Your task to perform on an android device: Turn off the flashlight Image 0: 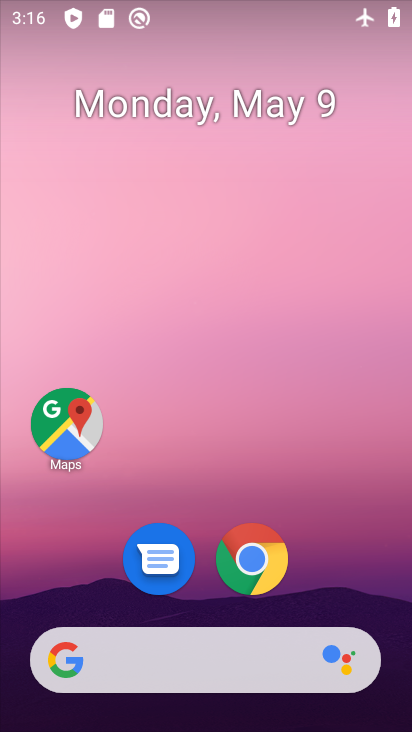
Step 0: drag from (200, 714) to (209, 140)
Your task to perform on an android device: Turn off the flashlight Image 1: 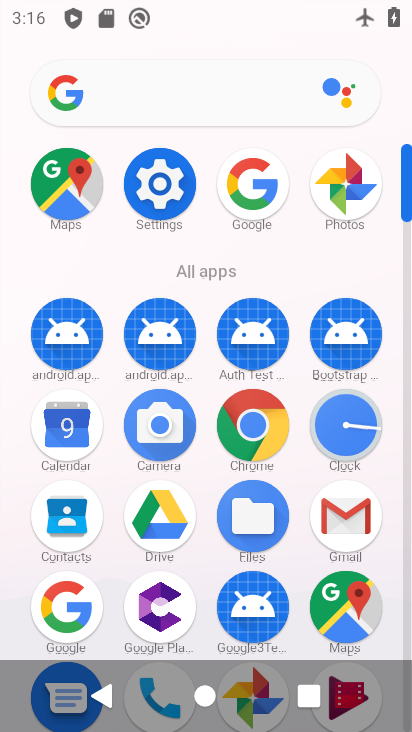
Step 1: click (154, 181)
Your task to perform on an android device: Turn off the flashlight Image 2: 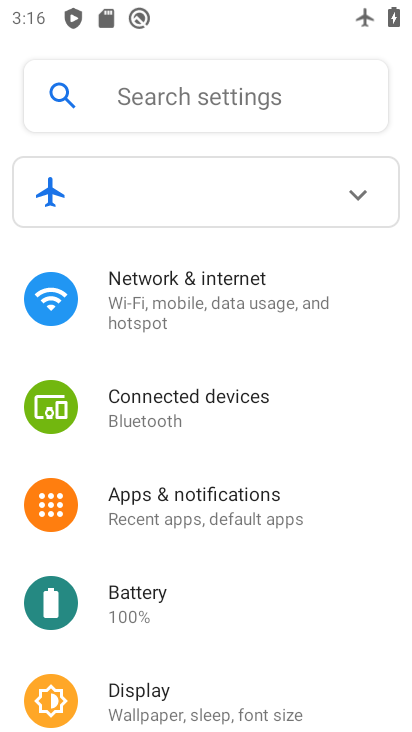
Step 2: task complete